Your task to perform on an android device: Open battery settings Image 0: 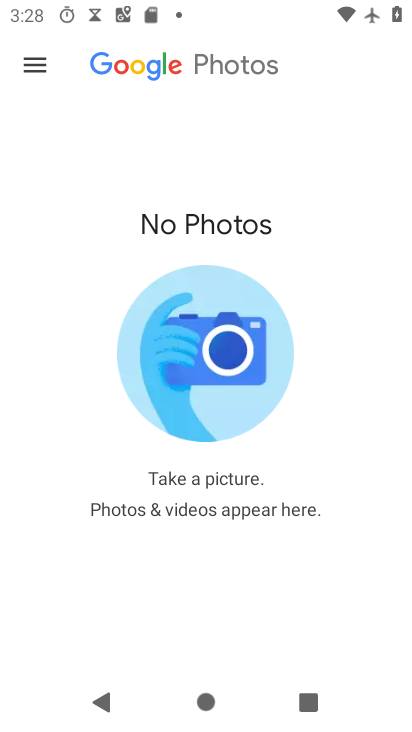
Step 0: press home button
Your task to perform on an android device: Open battery settings Image 1: 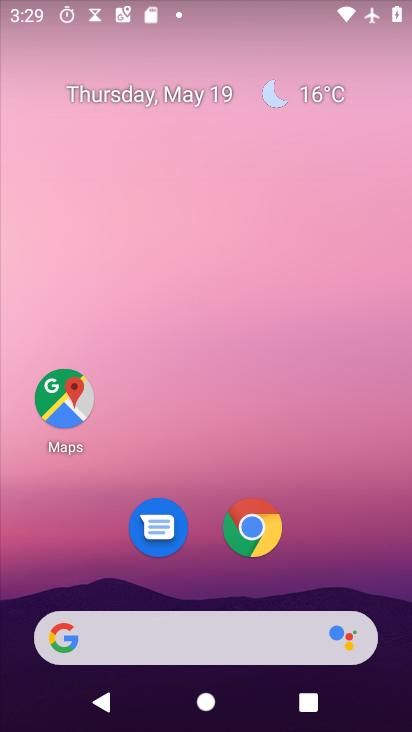
Step 1: drag from (321, 481) to (271, 125)
Your task to perform on an android device: Open battery settings Image 2: 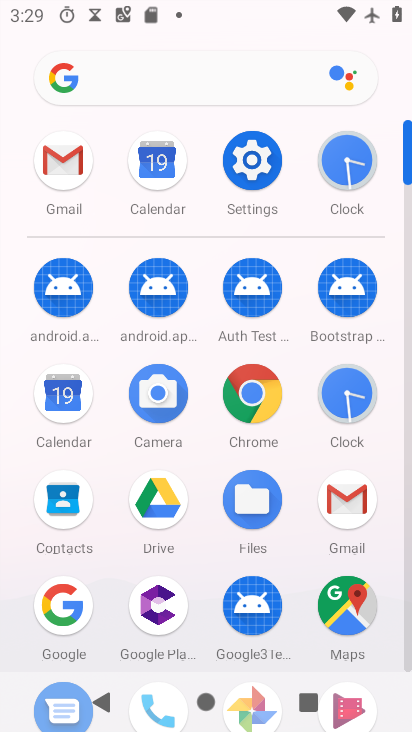
Step 2: click (278, 145)
Your task to perform on an android device: Open battery settings Image 3: 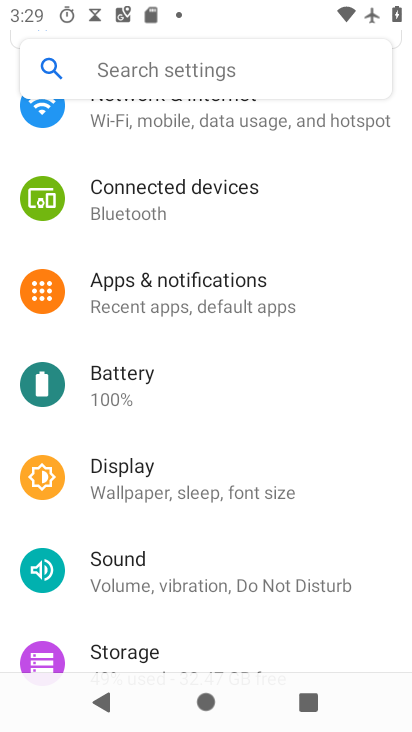
Step 3: click (229, 395)
Your task to perform on an android device: Open battery settings Image 4: 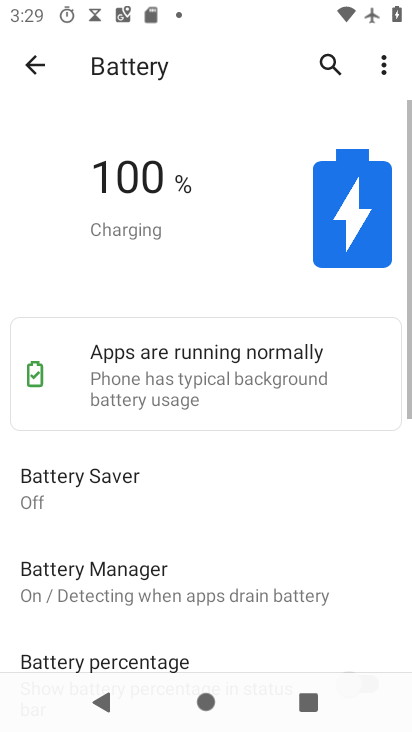
Step 4: task complete